Your task to perform on an android device: add a label to a message in the gmail app Image 0: 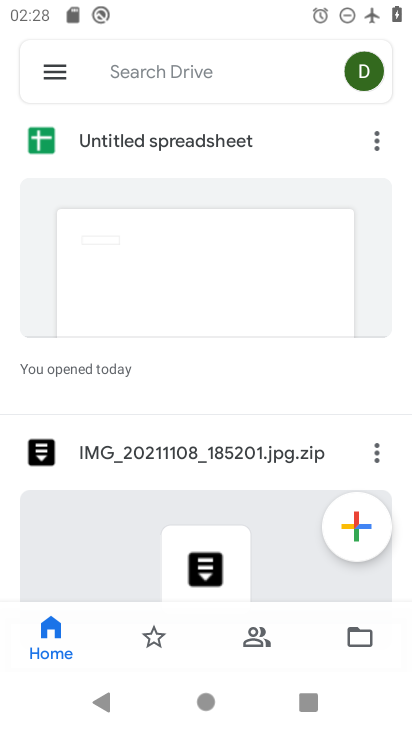
Step 0: press home button
Your task to perform on an android device: add a label to a message in the gmail app Image 1: 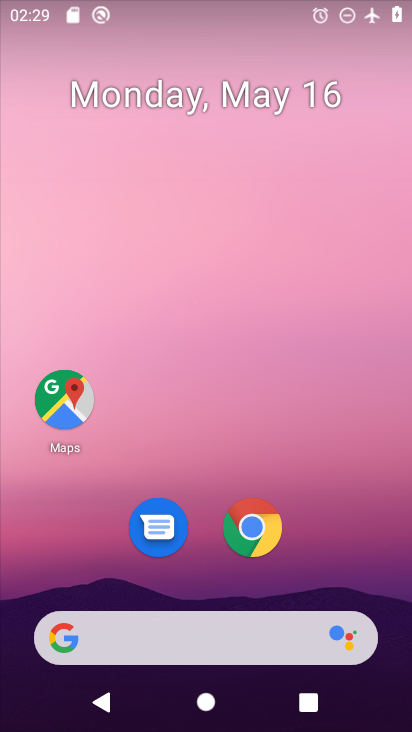
Step 1: drag from (321, 554) to (303, 154)
Your task to perform on an android device: add a label to a message in the gmail app Image 2: 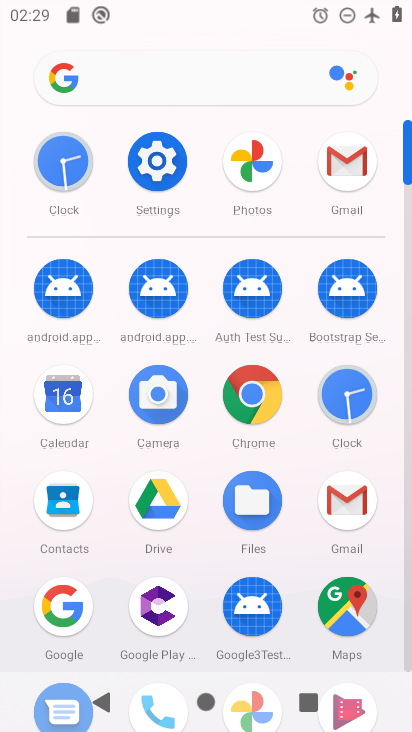
Step 2: click (335, 502)
Your task to perform on an android device: add a label to a message in the gmail app Image 3: 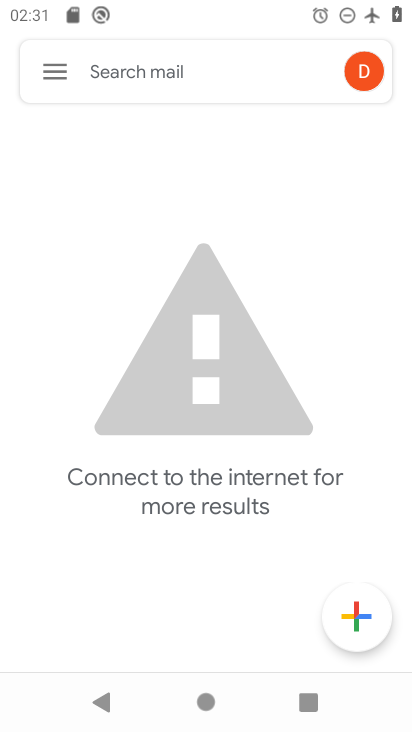
Step 3: click (42, 64)
Your task to perform on an android device: add a label to a message in the gmail app Image 4: 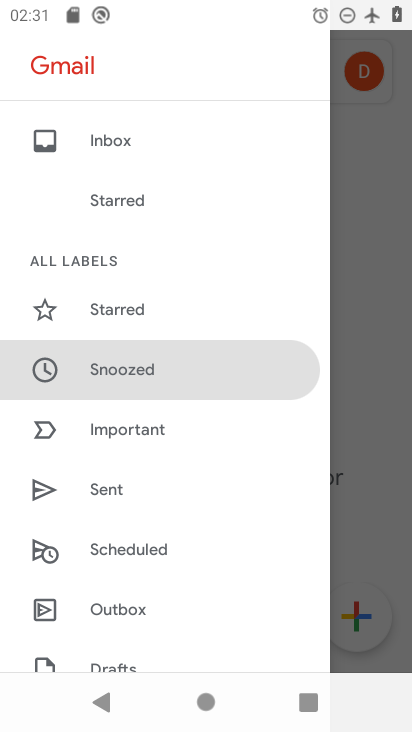
Step 4: drag from (125, 480) to (133, 275)
Your task to perform on an android device: add a label to a message in the gmail app Image 5: 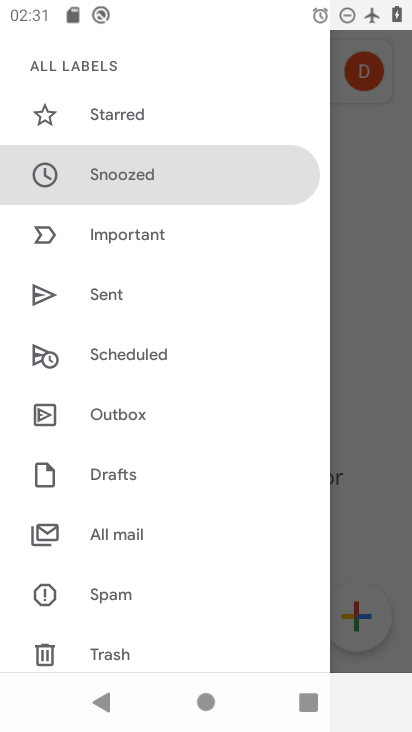
Step 5: click (173, 539)
Your task to perform on an android device: add a label to a message in the gmail app Image 6: 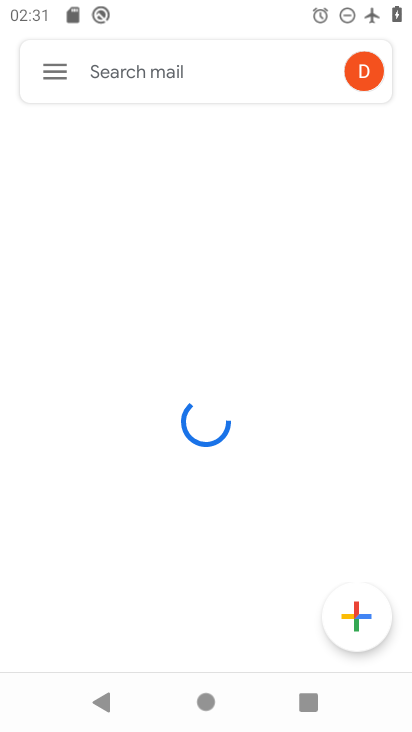
Step 6: task complete